Your task to perform on an android device: check out phone information Image 0: 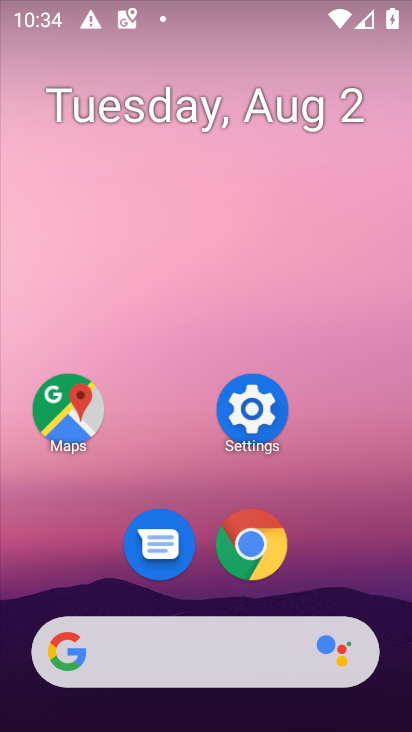
Step 0: press home button
Your task to perform on an android device: check out phone information Image 1: 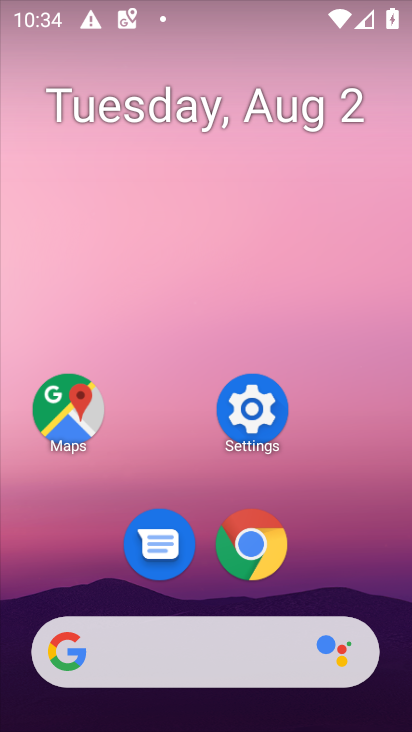
Step 1: click (260, 405)
Your task to perform on an android device: check out phone information Image 2: 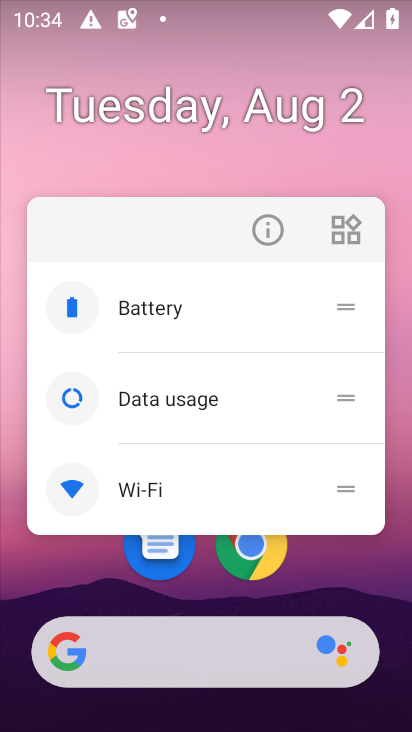
Step 2: click (345, 573)
Your task to perform on an android device: check out phone information Image 3: 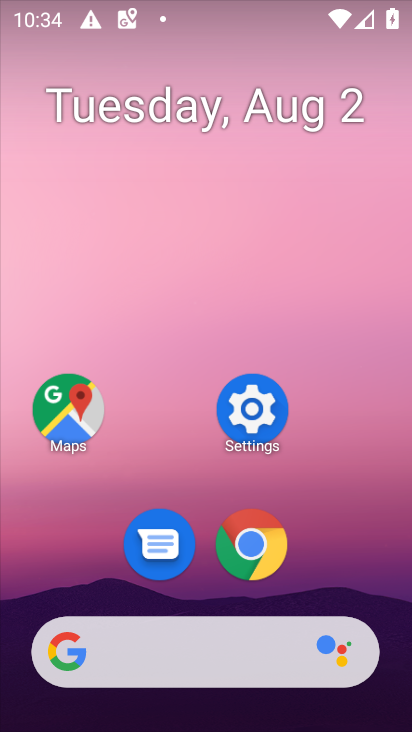
Step 3: click (246, 402)
Your task to perform on an android device: check out phone information Image 4: 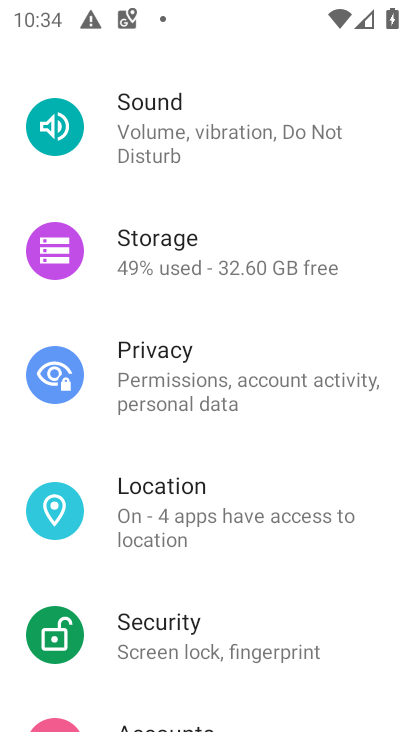
Step 4: drag from (243, 617) to (310, 108)
Your task to perform on an android device: check out phone information Image 5: 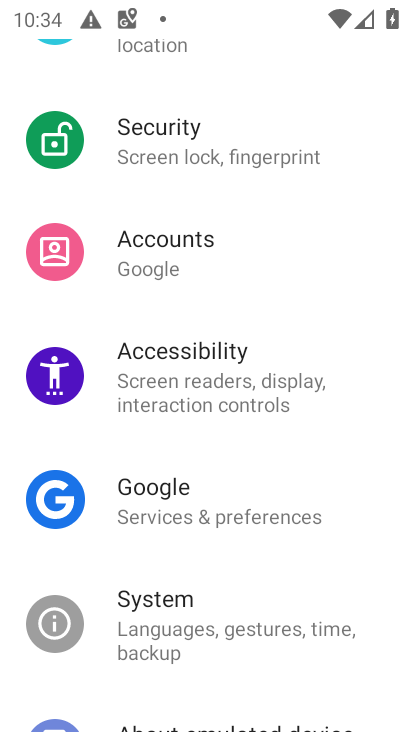
Step 5: drag from (248, 660) to (335, 125)
Your task to perform on an android device: check out phone information Image 6: 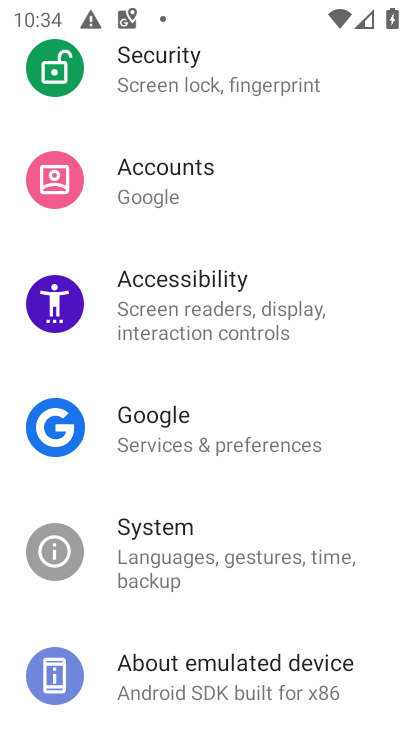
Step 6: click (225, 650)
Your task to perform on an android device: check out phone information Image 7: 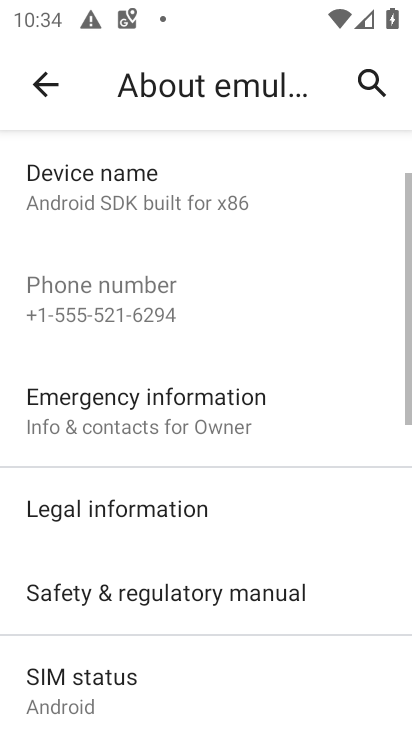
Step 7: task complete